Your task to perform on an android device: read, delete, or share a saved page in the chrome app Image 0: 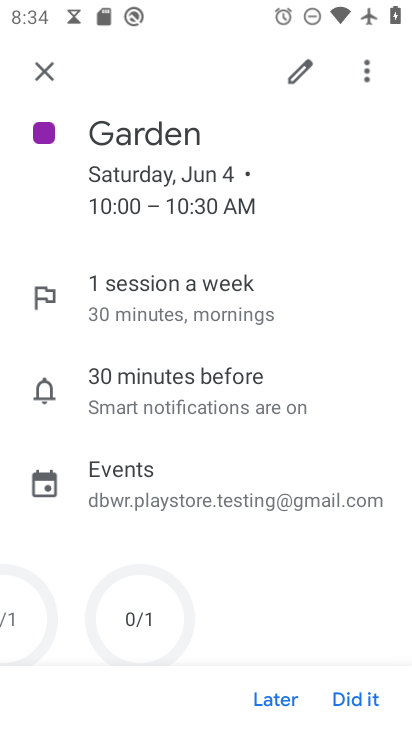
Step 0: press home button
Your task to perform on an android device: read, delete, or share a saved page in the chrome app Image 1: 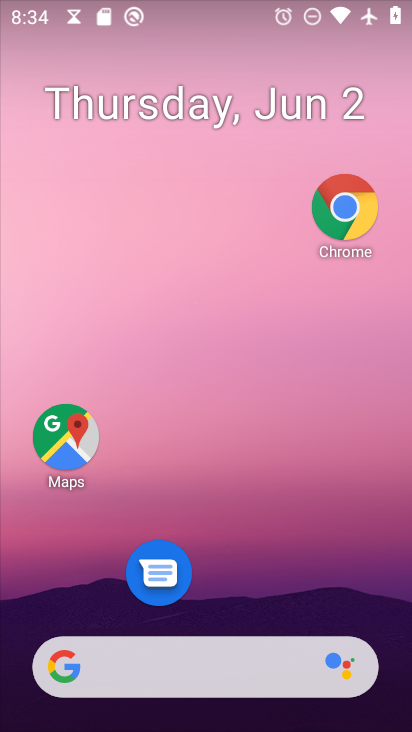
Step 1: click (339, 217)
Your task to perform on an android device: read, delete, or share a saved page in the chrome app Image 2: 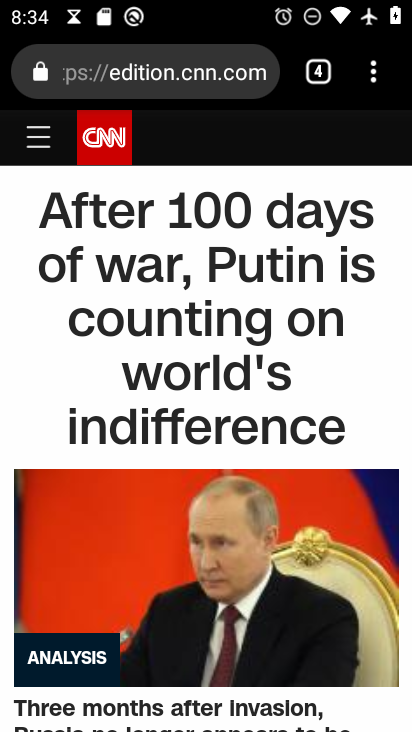
Step 2: drag from (374, 84) to (166, 474)
Your task to perform on an android device: read, delete, or share a saved page in the chrome app Image 3: 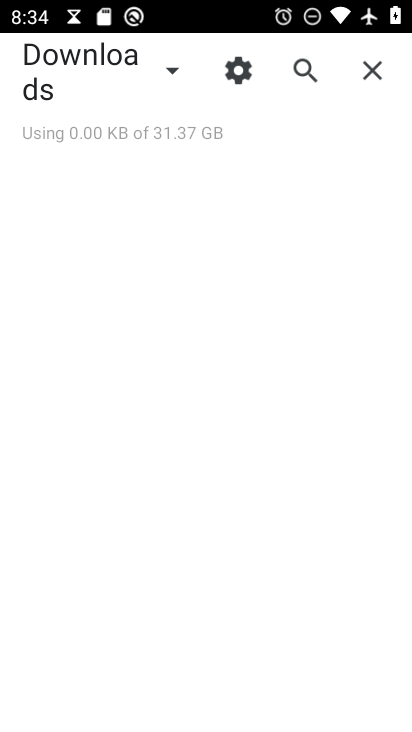
Step 3: click (170, 72)
Your task to perform on an android device: read, delete, or share a saved page in the chrome app Image 4: 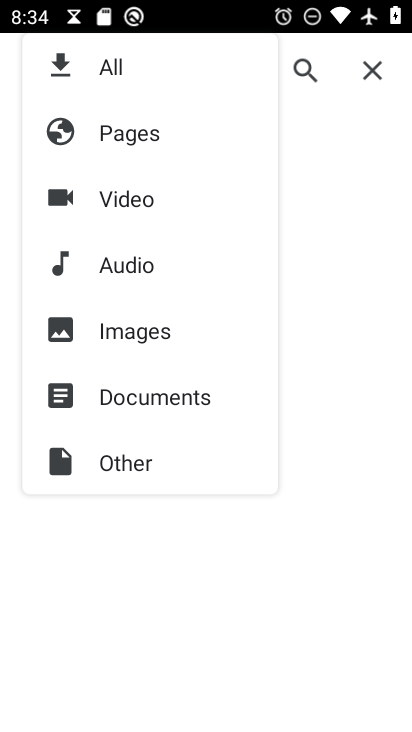
Step 4: click (130, 132)
Your task to perform on an android device: read, delete, or share a saved page in the chrome app Image 5: 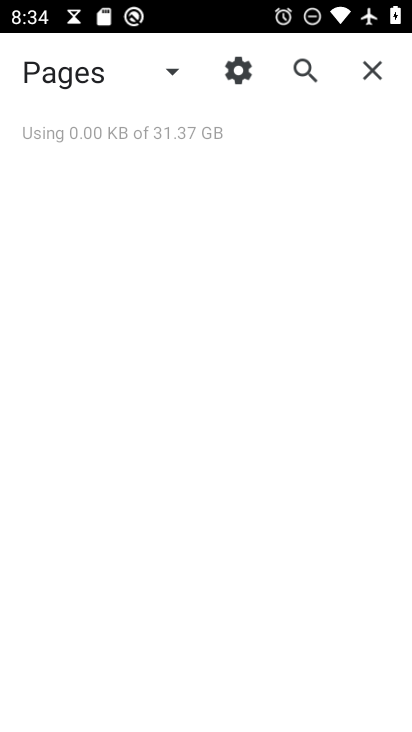
Step 5: task complete